Your task to perform on an android device: Search for logitech g903 on costco, select the first entry, and add it to the cart. Image 0: 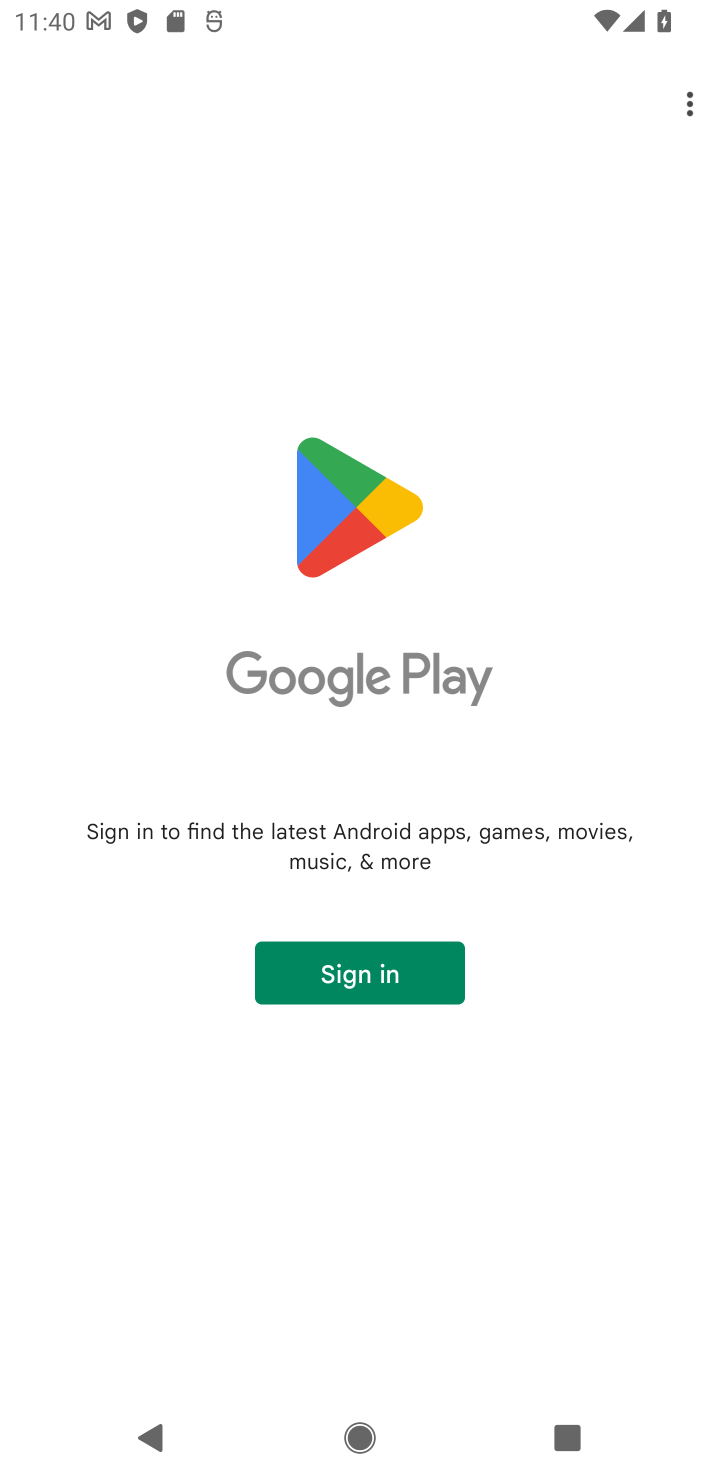
Step 0: press home button
Your task to perform on an android device: Search for logitech g903 on costco, select the first entry, and add it to the cart. Image 1: 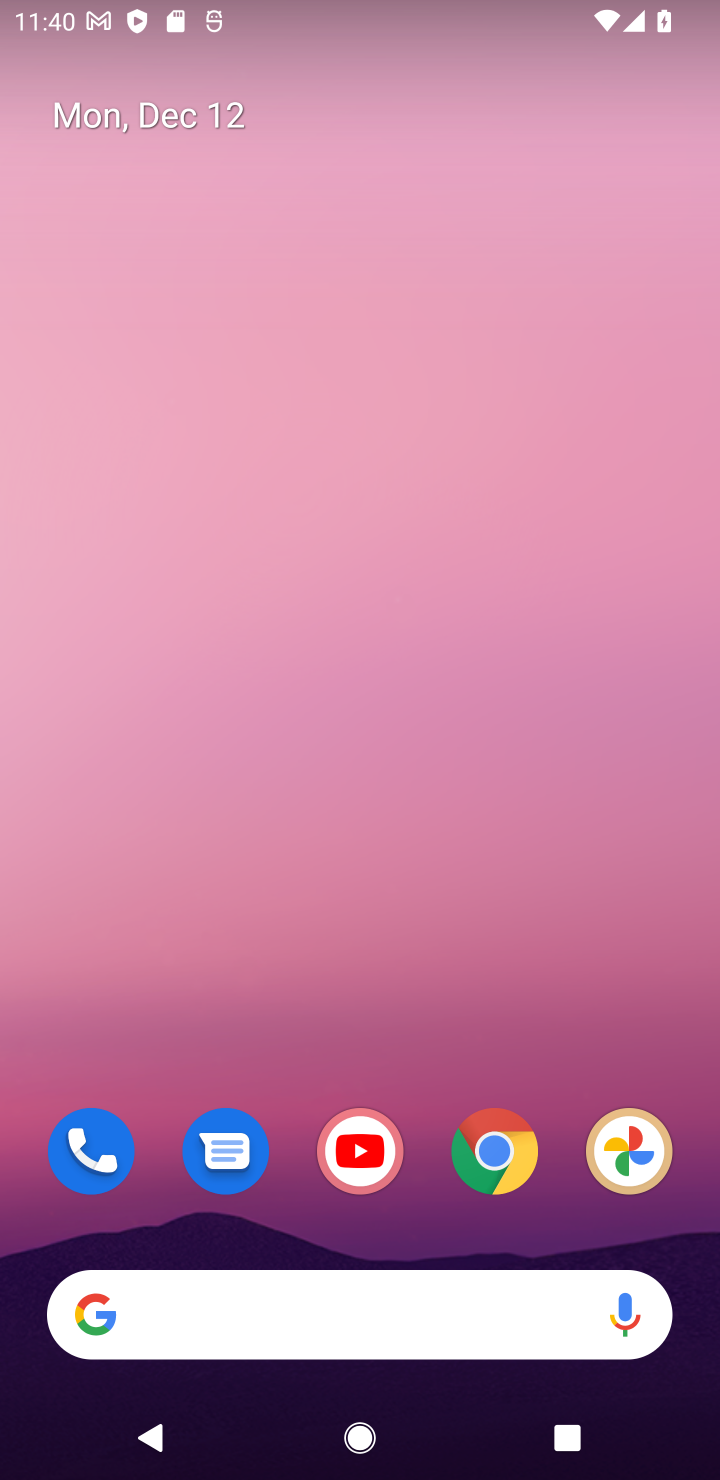
Step 1: drag from (405, 1097) to (364, 400)
Your task to perform on an android device: Search for logitech g903 on costco, select the first entry, and add it to the cart. Image 2: 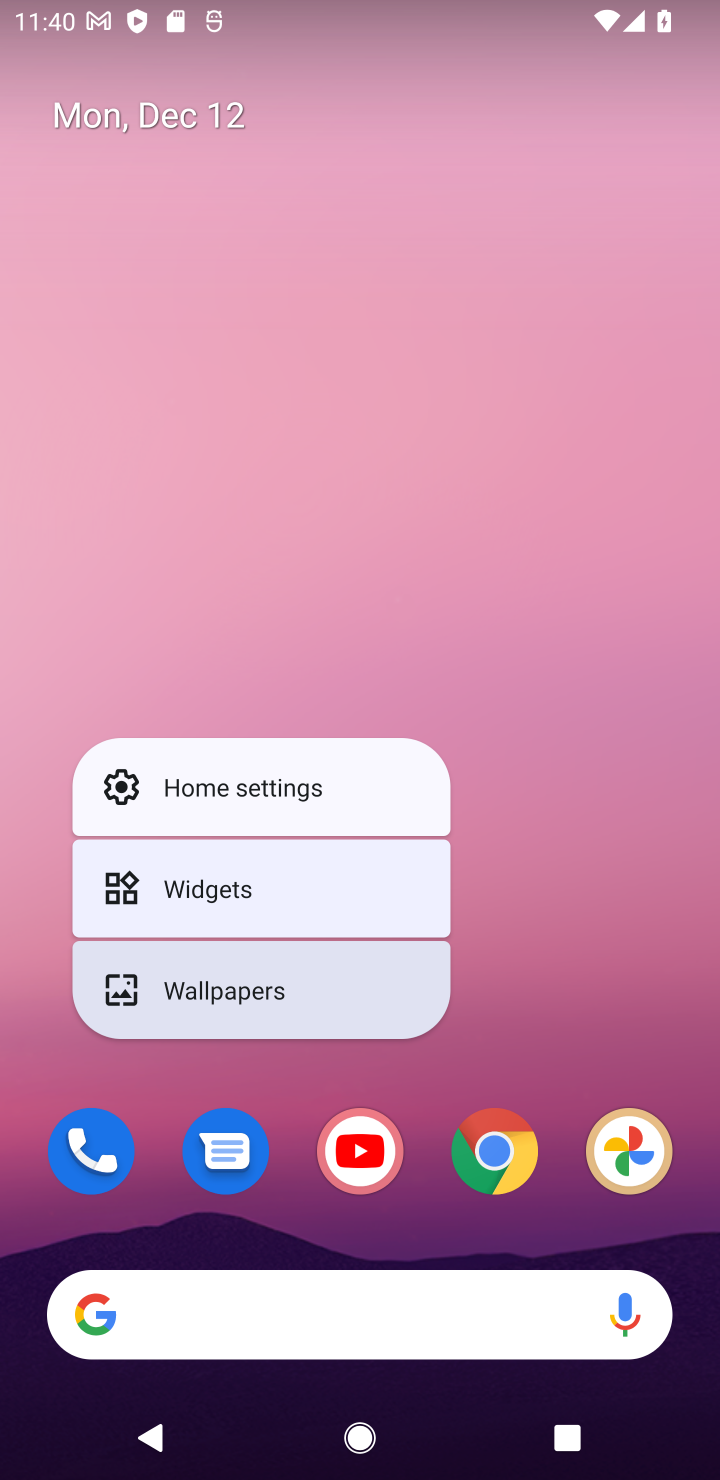
Step 2: click (513, 955)
Your task to perform on an android device: Search for logitech g903 on costco, select the first entry, and add it to the cart. Image 3: 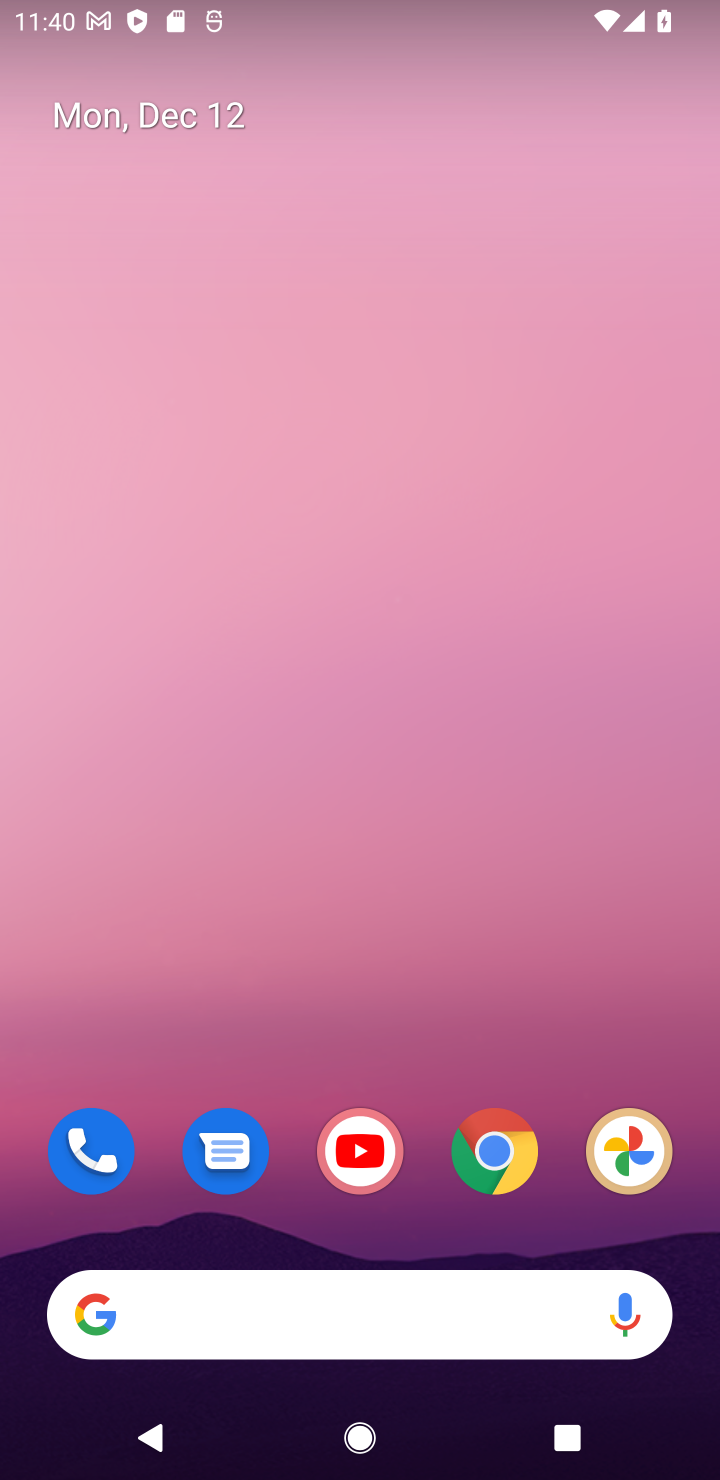
Step 3: drag from (296, 1305) to (386, 369)
Your task to perform on an android device: Search for logitech g903 on costco, select the first entry, and add it to the cart. Image 4: 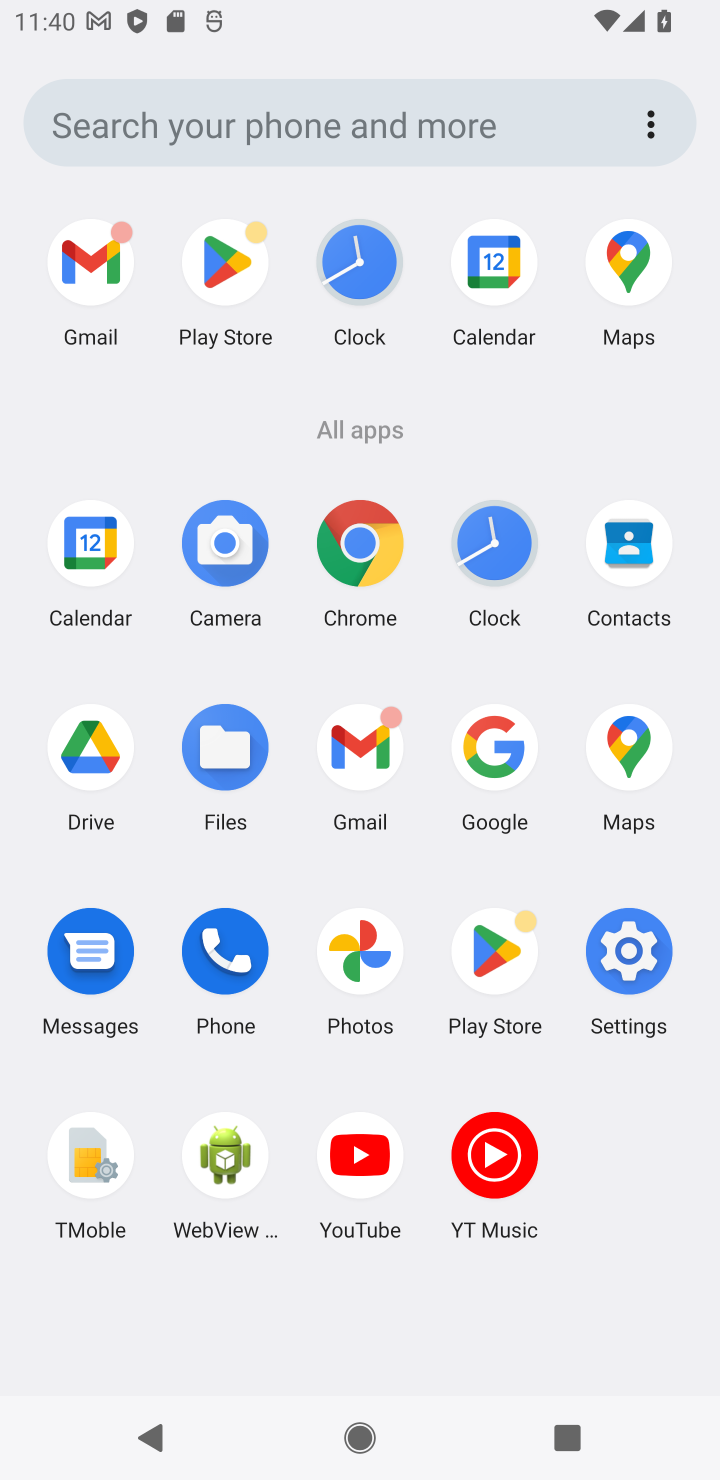
Step 4: click (501, 755)
Your task to perform on an android device: Search for logitech g903 on costco, select the first entry, and add it to the cart. Image 5: 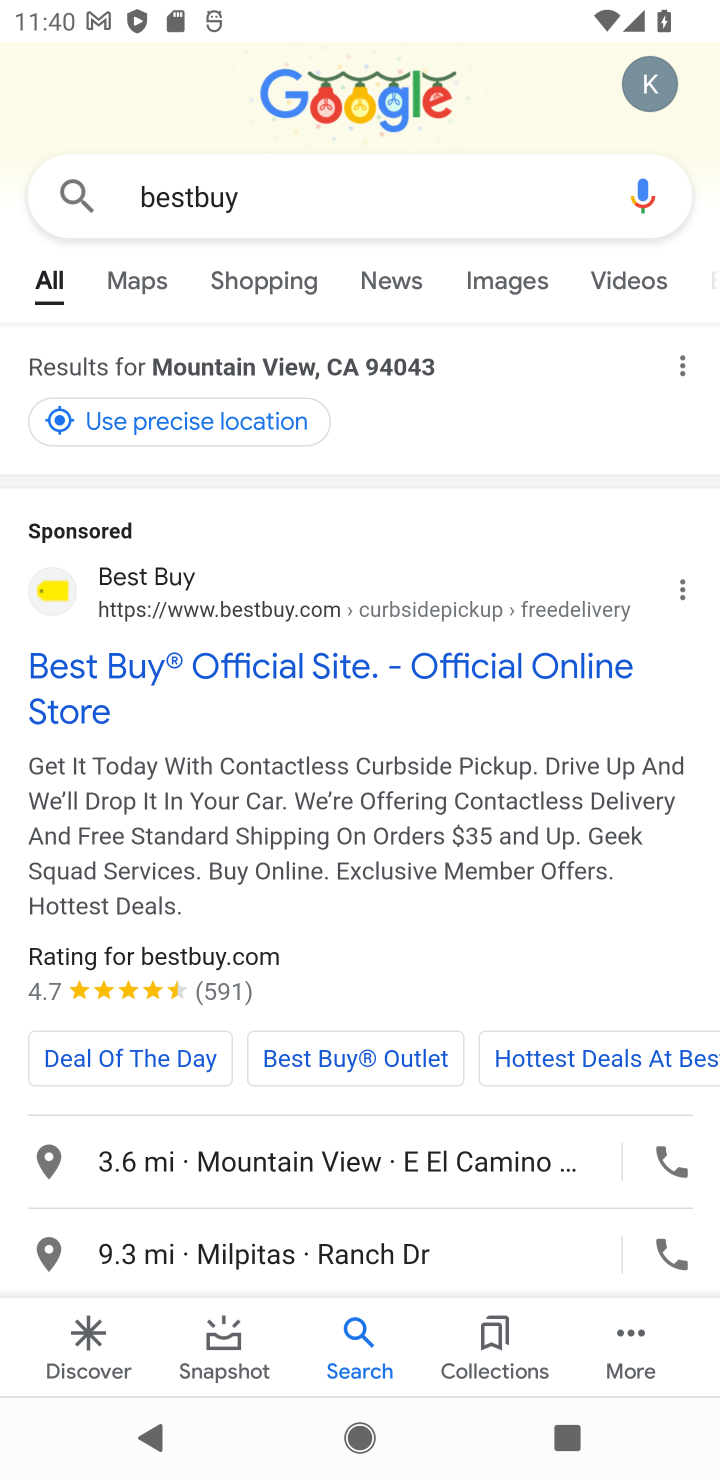
Step 5: click (236, 199)
Your task to perform on an android device: Search for logitech g903 on costco, select the first entry, and add it to the cart. Image 6: 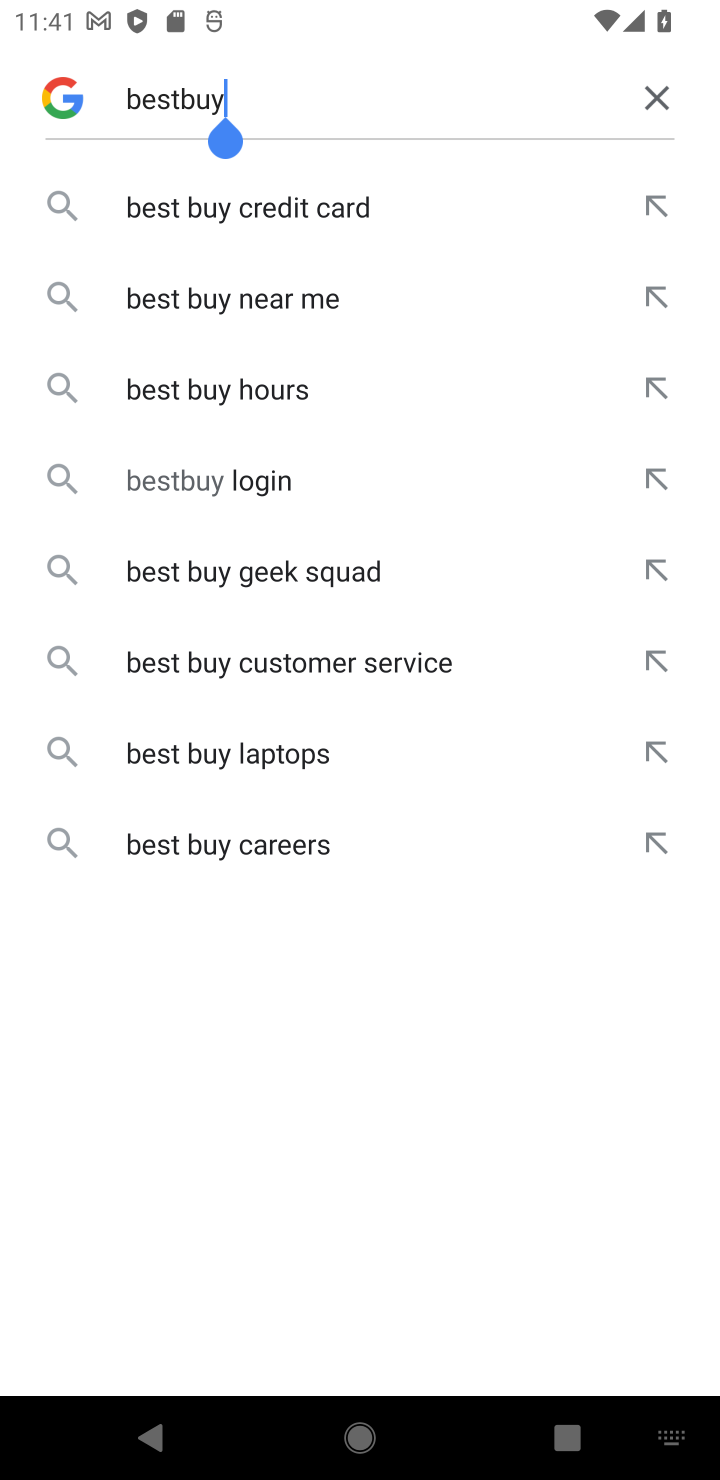
Step 6: click (645, 97)
Your task to perform on an android device: Search for logitech g903 on costco, select the first entry, and add it to the cart. Image 7: 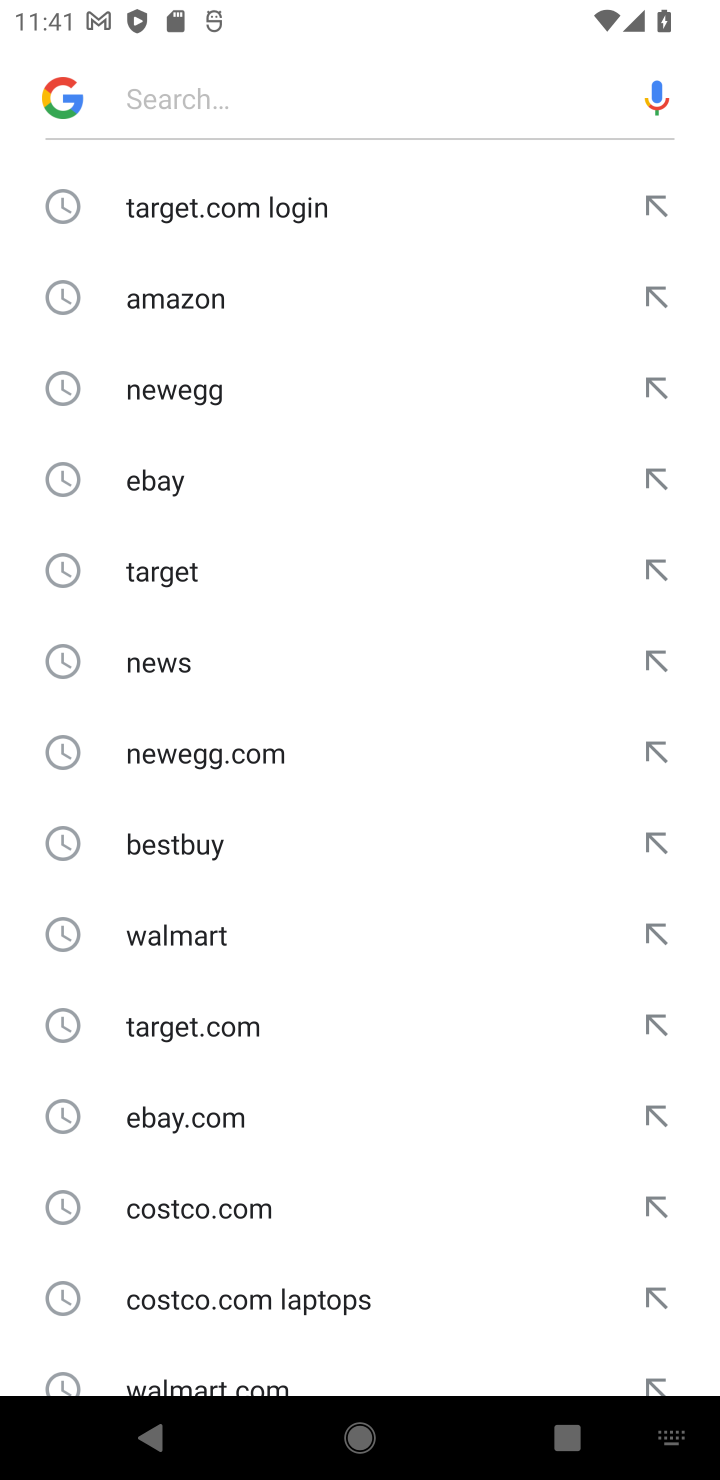
Step 7: click (209, 1198)
Your task to perform on an android device: Search for logitech g903 on costco, select the first entry, and add it to the cart. Image 8: 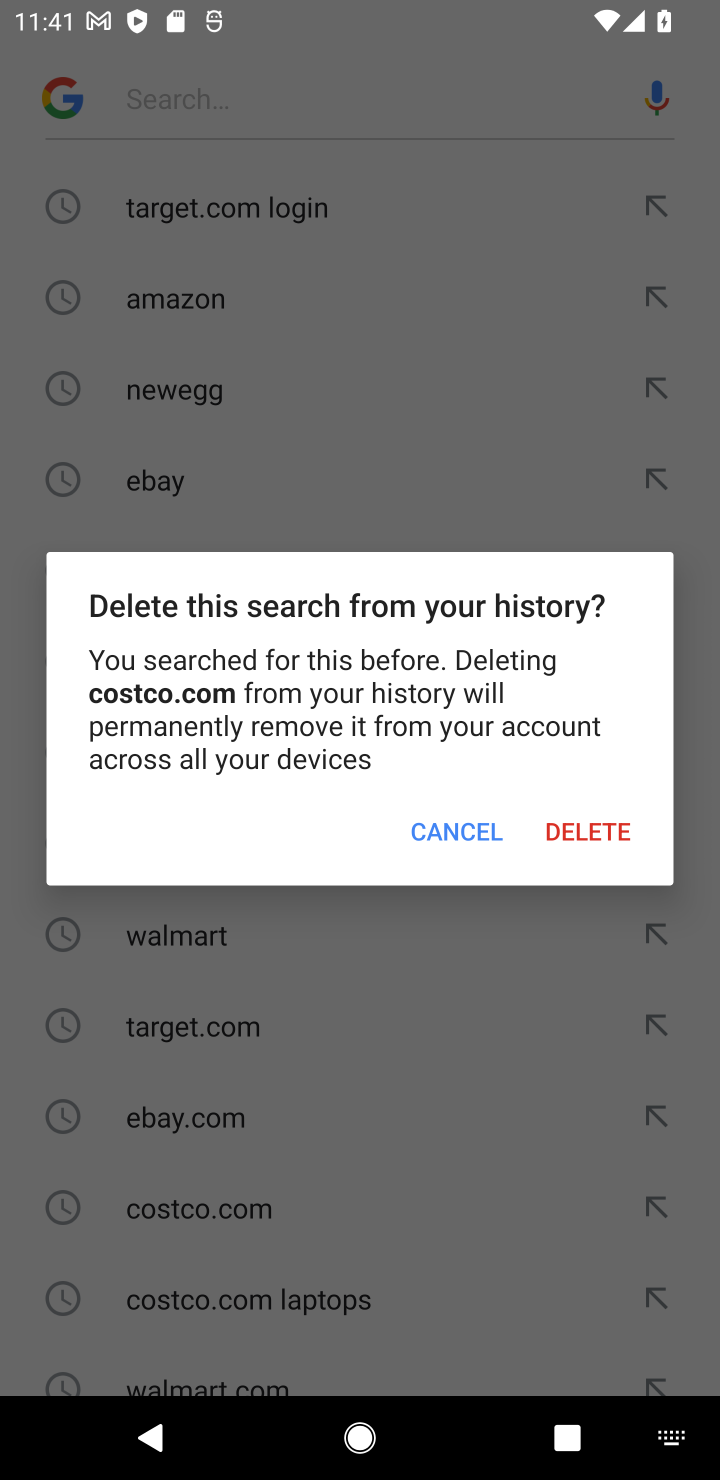
Step 8: click (449, 838)
Your task to perform on an android device: Search for logitech g903 on costco, select the first entry, and add it to the cart. Image 9: 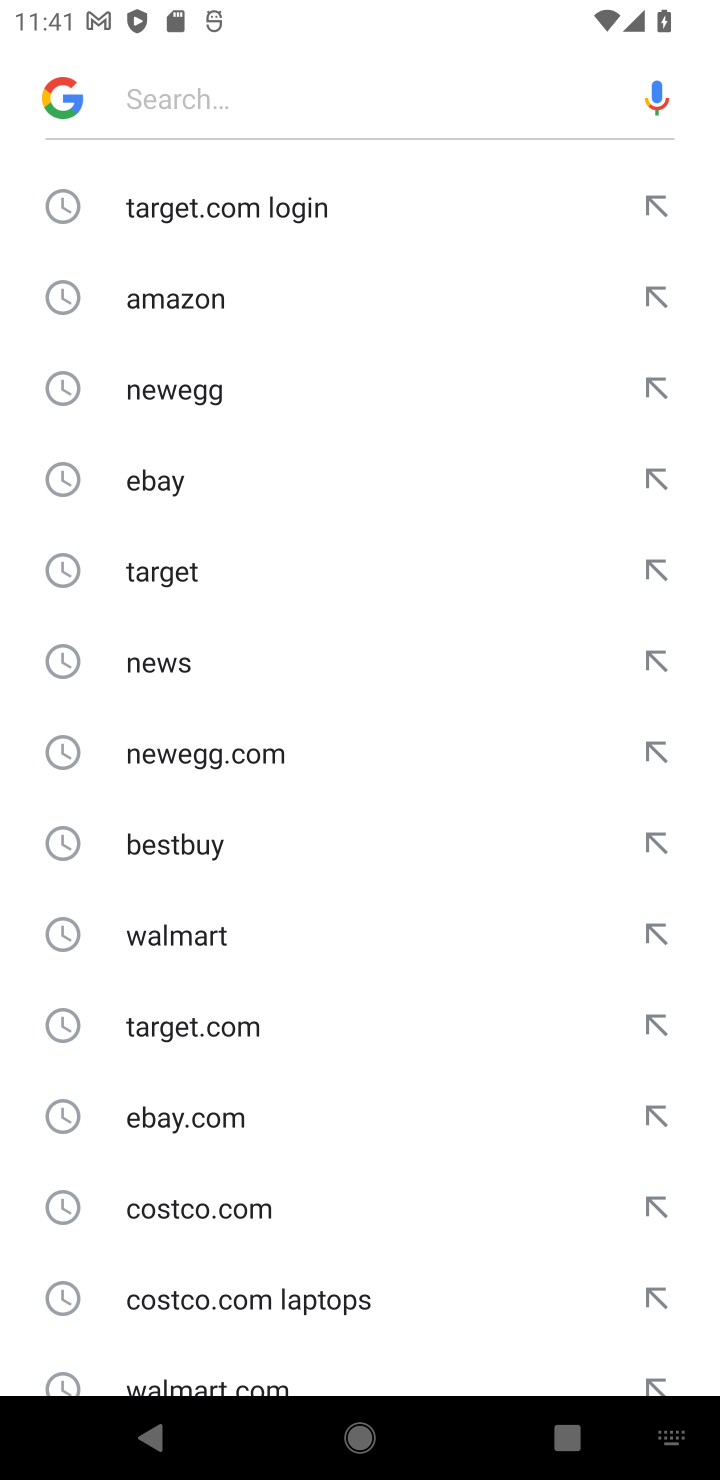
Step 9: click (235, 1217)
Your task to perform on an android device: Search for logitech g903 on costco, select the first entry, and add it to the cart. Image 10: 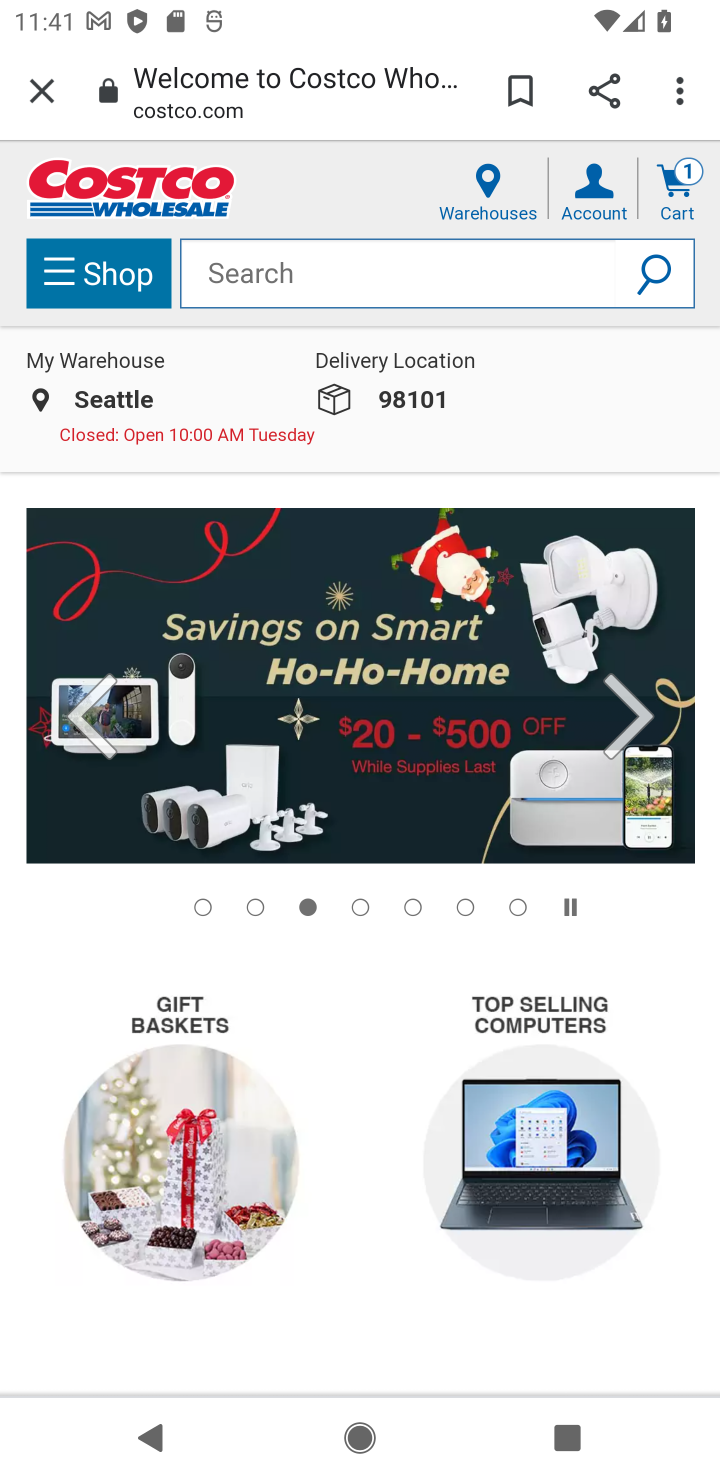
Step 10: click (230, 273)
Your task to perform on an android device: Search for logitech g903 on costco, select the first entry, and add it to the cart. Image 11: 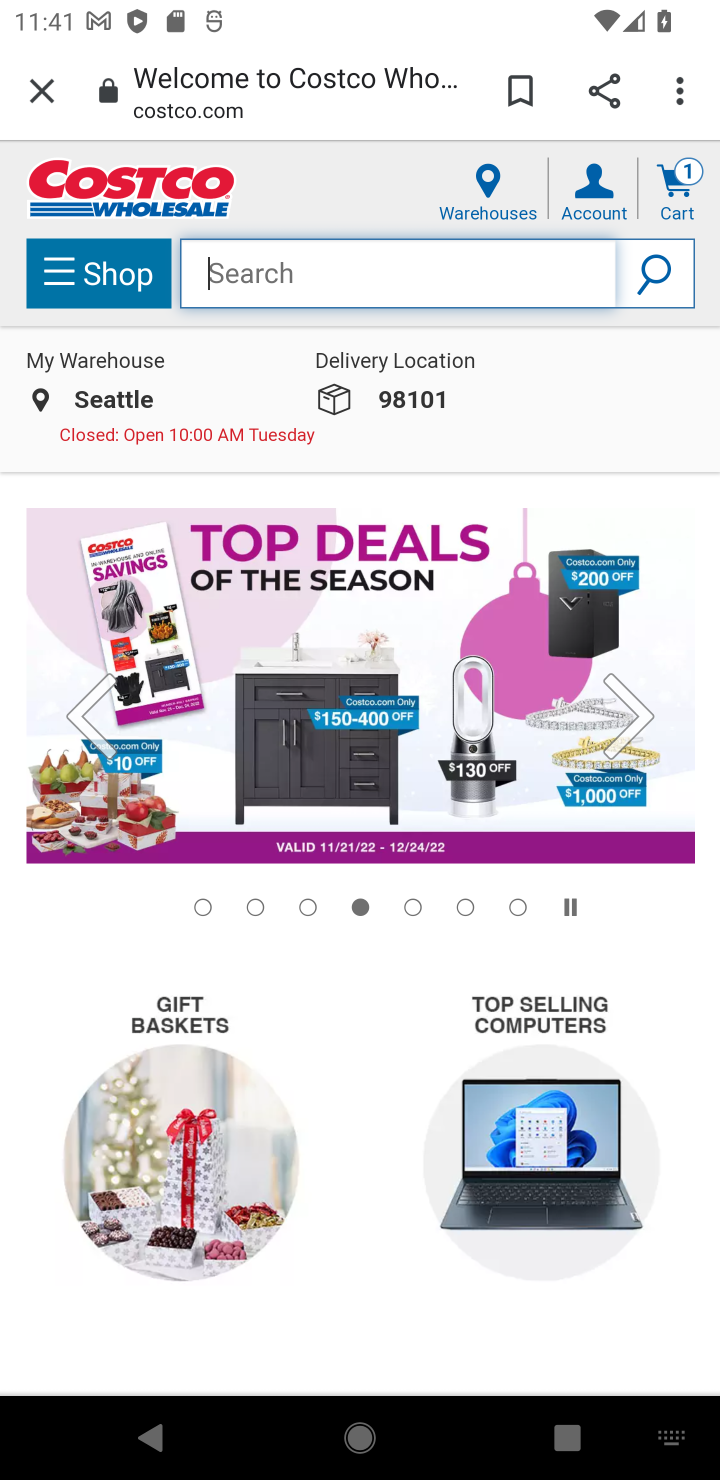
Step 11: type "logitech g903"
Your task to perform on an android device: Search for logitech g903 on costco, select the first entry, and add it to the cart. Image 12: 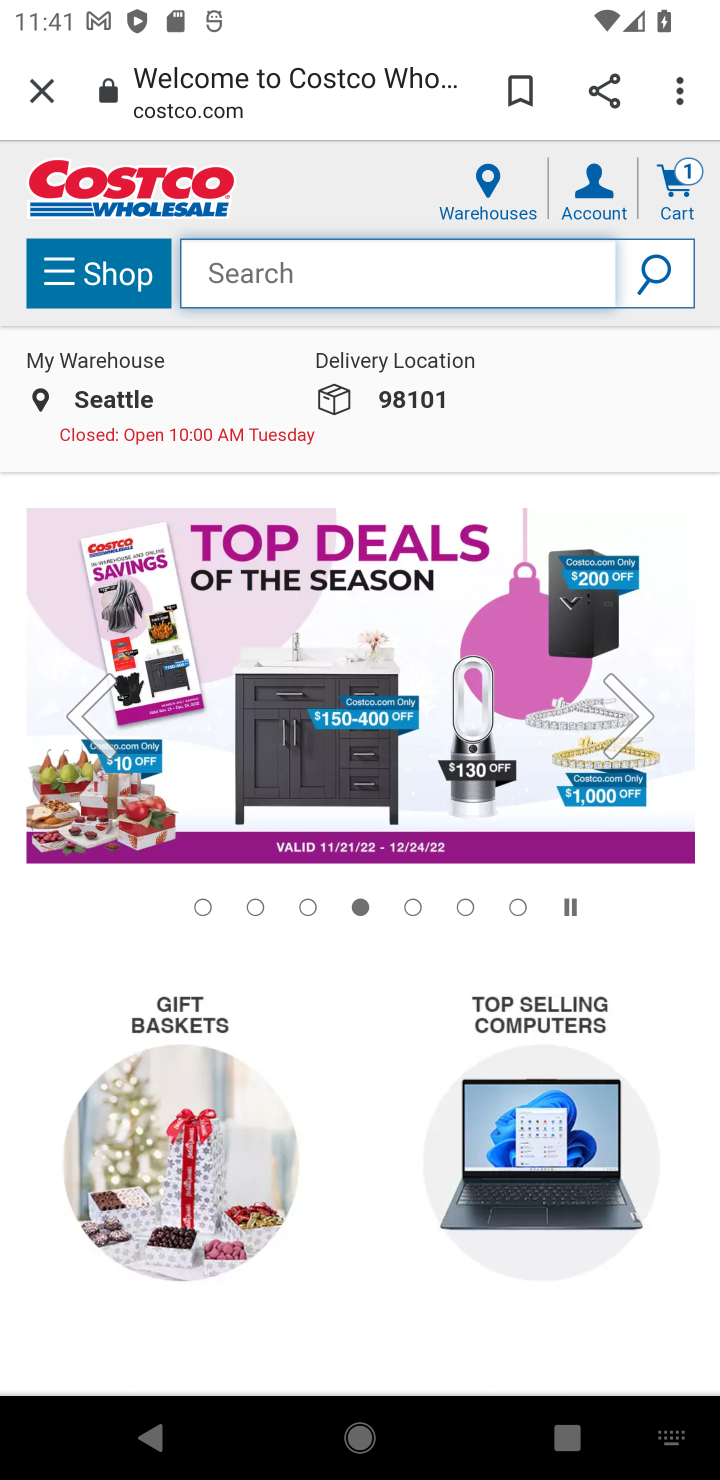
Step 12: click (662, 269)
Your task to perform on an android device: Search for logitech g903 on costco, select the first entry, and add it to the cart. Image 13: 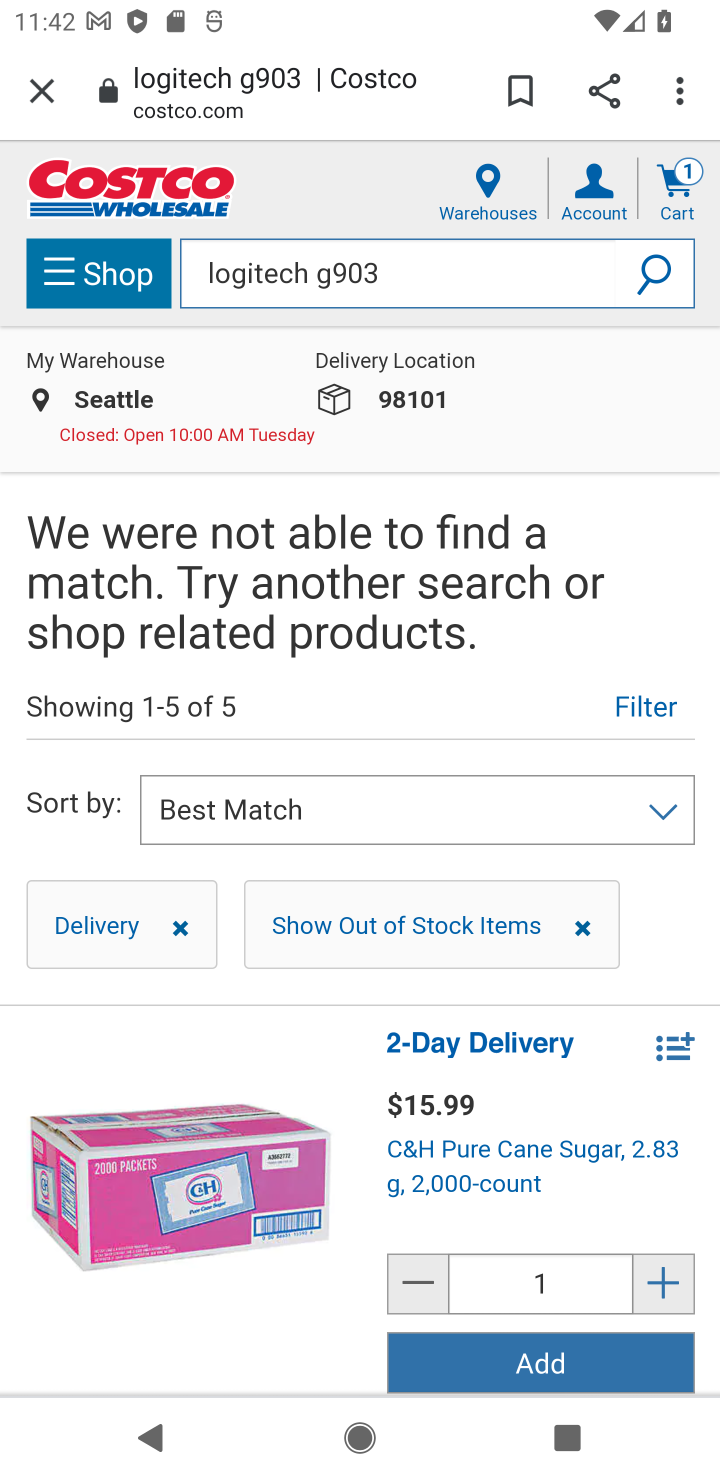
Step 13: drag from (537, 1154) to (533, 586)
Your task to perform on an android device: Search for logitech g903 on costco, select the first entry, and add it to the cart. Image 14: 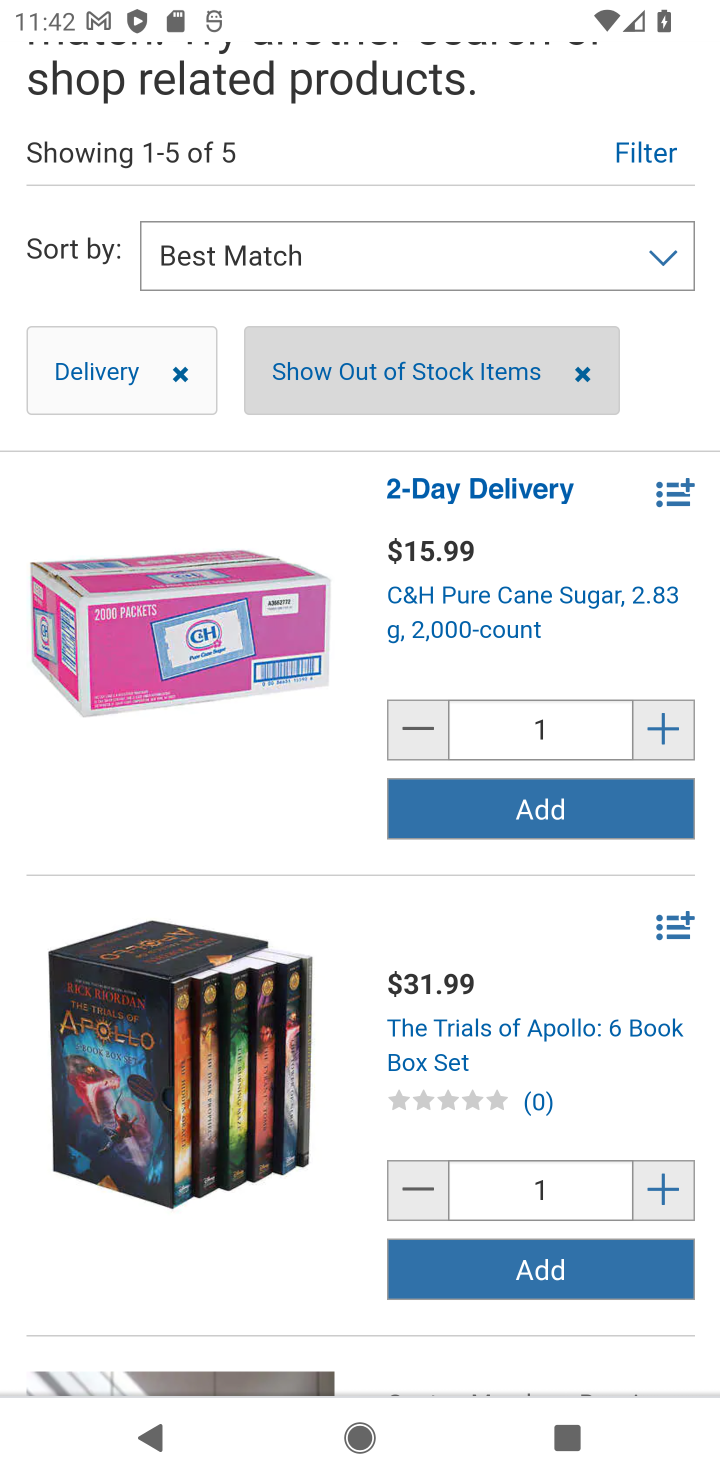
Step 14: click (542, 821)
Your task to perform on an android device: Search for logitech g903 on costco, select the first entry, and add it to the cart. Image 15: 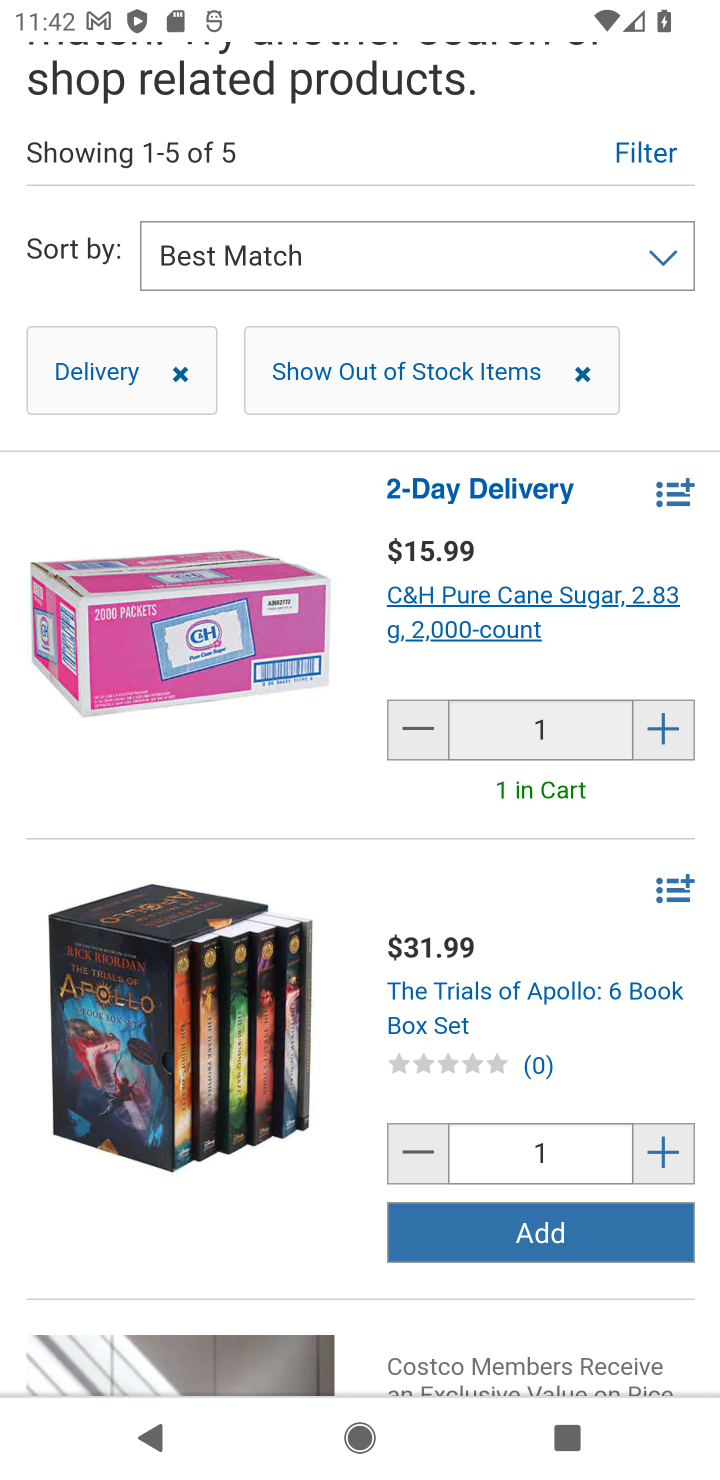
Step 15: task complete